Your task to perform on an android device: turn off airplane mode Image 0: 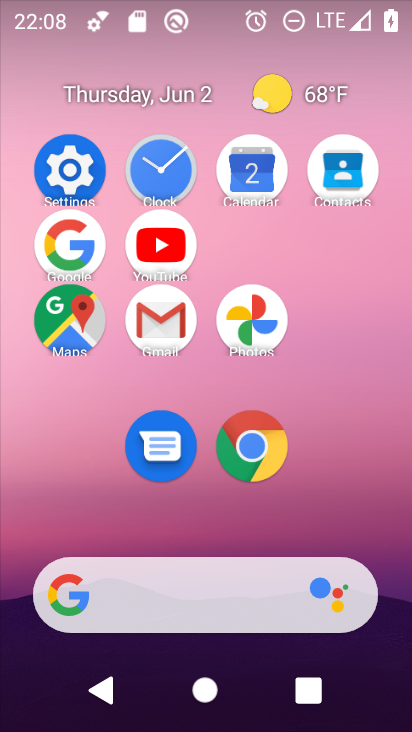
Step 0: click (82, 171)
Your task to perform on an android device: turn off airplane mode Image 1: 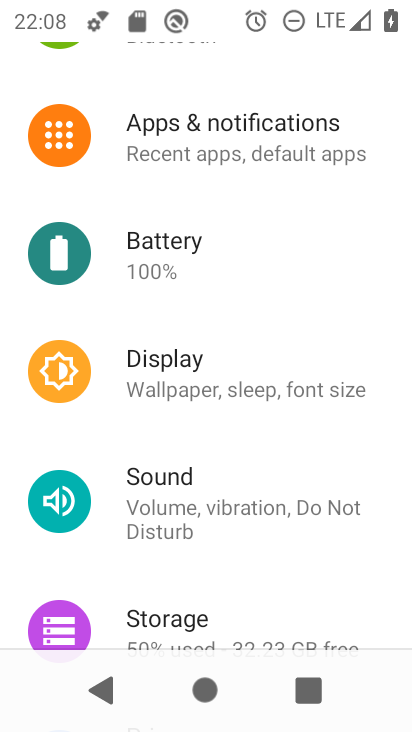
Step 1: drag from (291, 176) to (275, 555)
Your task to perform on an android device: turn off airplane mode Image 2: 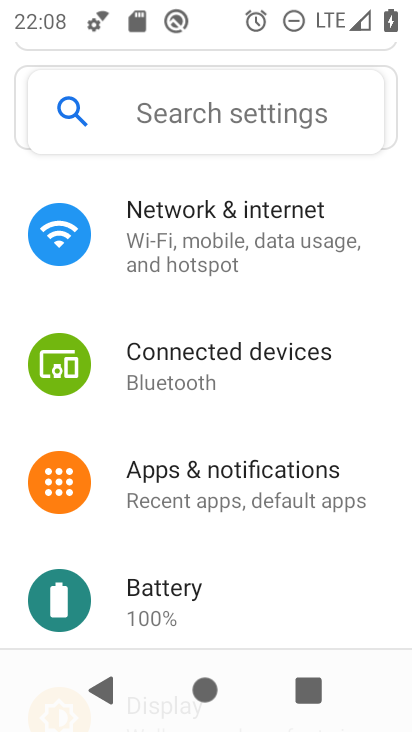
Step 2: click (292, 231)
Your task to perform on an android device: turn off airplane mode Image 3: 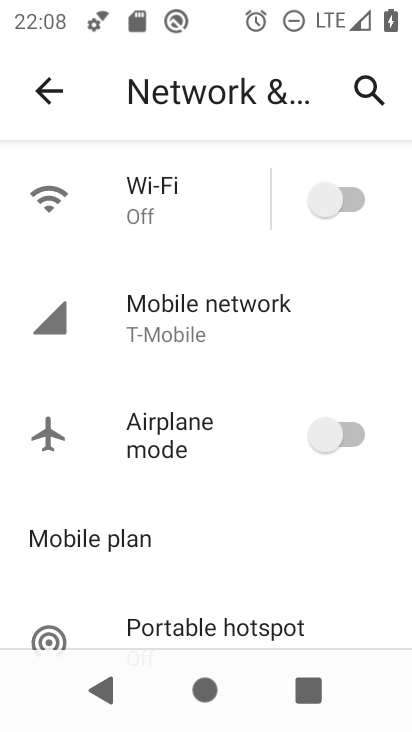
Step 3: task complete